Your task to perform on an android device: Open Youtube and go to "Your channel" Image 0: 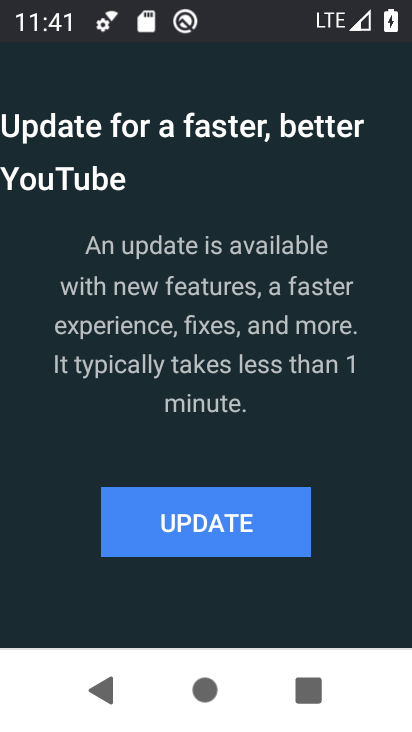
Step 0: press home button
Your task to perform on an android device: Open Youtube and go to "Your channel" Image 1: 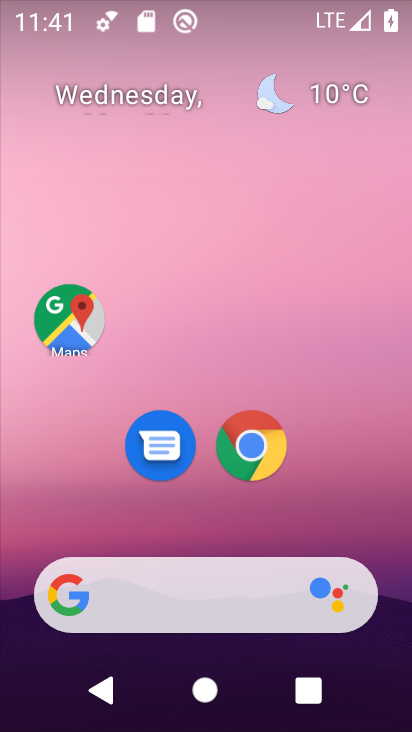
Step 1: drag from (190, 523) to (269, 84)
Your task to perform on an android device: Open Youtube and go to "Your channel" Image 2: 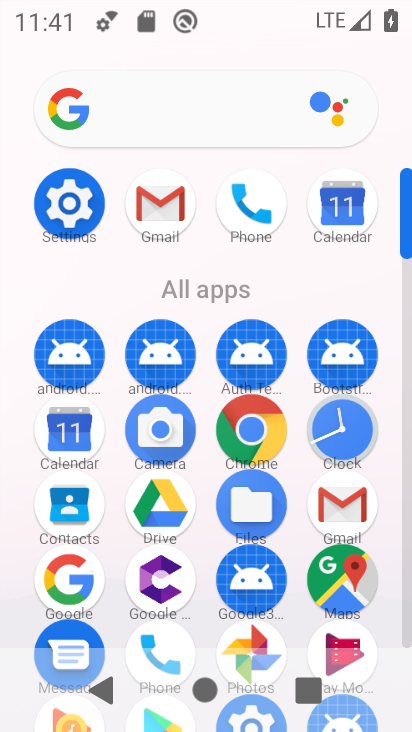
Step 2: drag from (201, 530) to (270, 104)
Your task to perform on an android device: Open Youtube and go to "Your channel" Image 3: 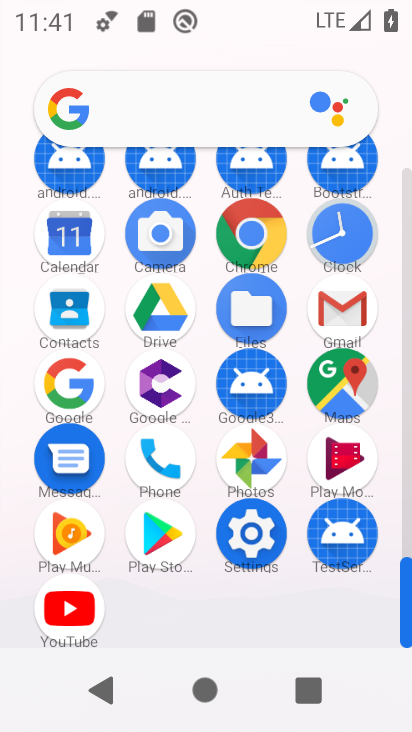
Step 3: click (68, 618)
Your task to perform on an android device: Open Youtube and go to "Your channel" Image 4: 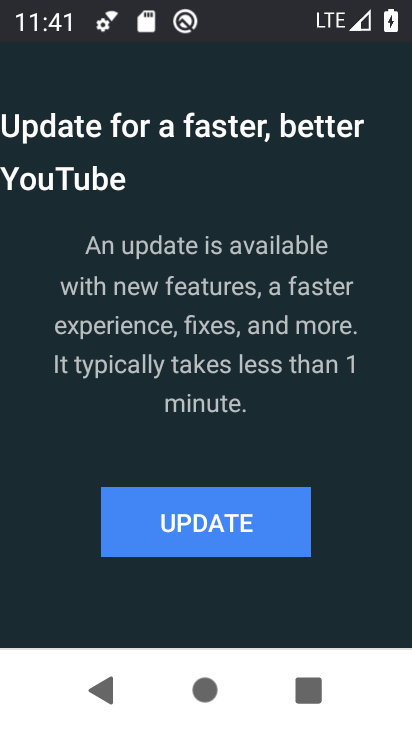
Step 4: click (187, 524)
Your task to perform on an android device: Open Youtube and go to "Your channel" Image 5: 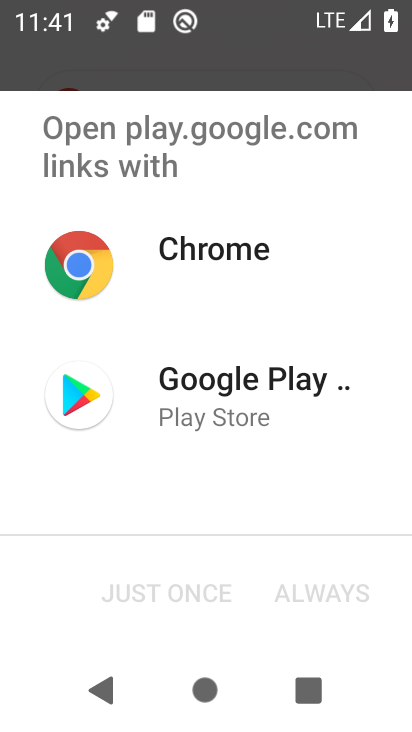
Step 5: click (207, 388)
Your task to perform on an android device: Open Youtube and go to "Your channel" Image 6: 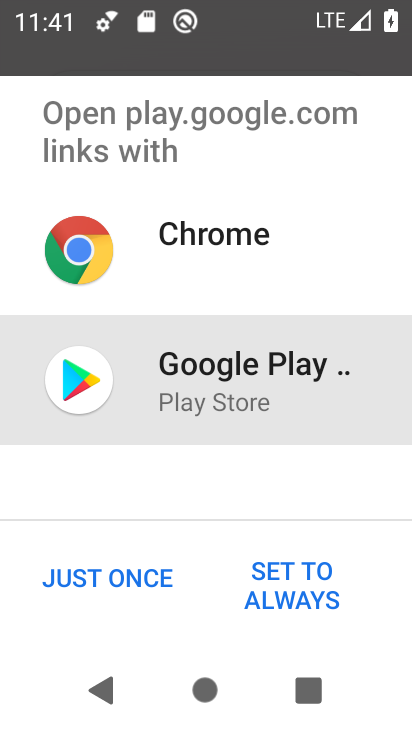
Step 6: click (134, 543)
Your task to perform on an android device: Open Youtube and go to "Your channel" Image 7: 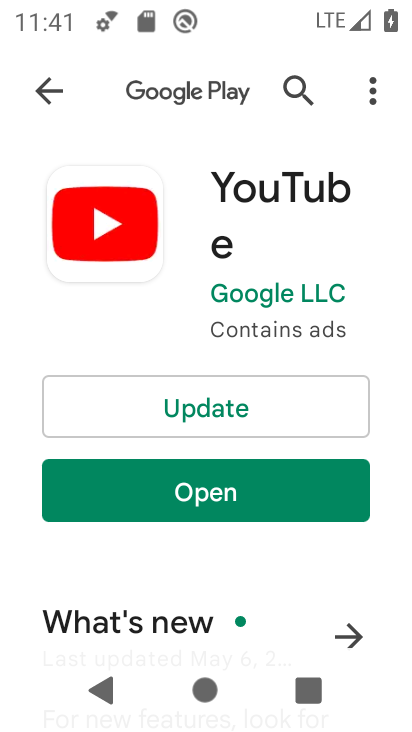
Step 7: click (201, 416)
Your task to perform on an android device: Open Youtube and go to "Your channel" Image 8: 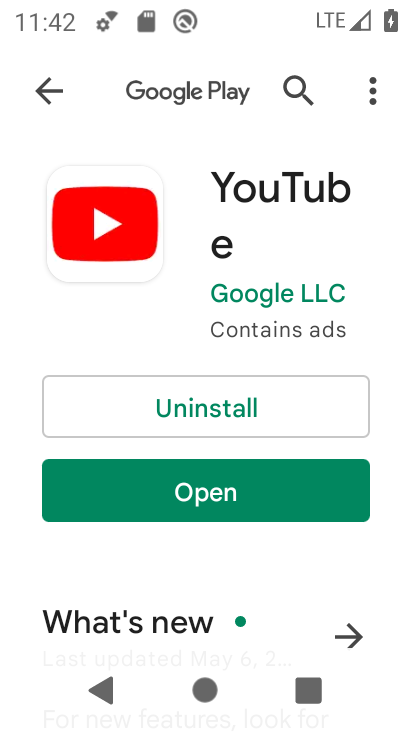
Step 8: click (221, 492)
Your task to perform on an android device: Open Youtube and go to "Your channel" Image 9: 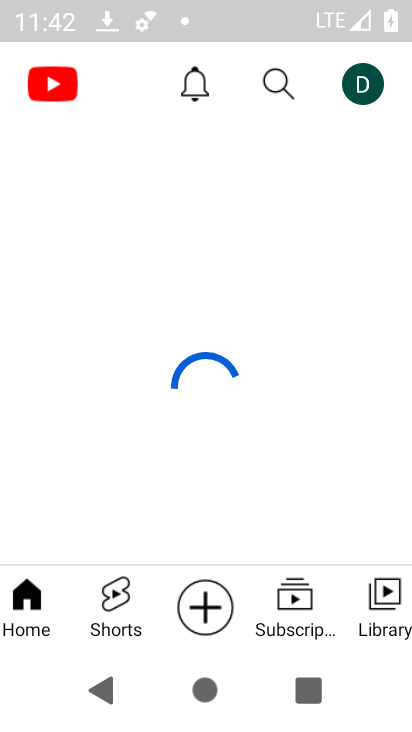
Step 9: click (363, 78)
Your task to perform on an android device: Open Youtube and go to "Your channel" Image 10: 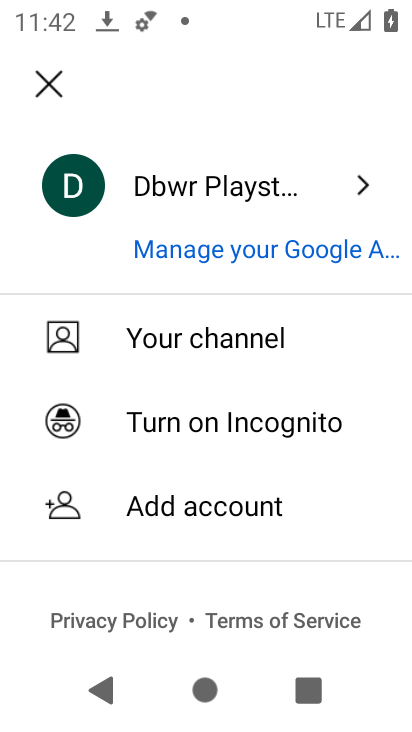
Step 10: click (163, 343)
Your task to perform on an android device: Open Youtube and go to "Your channel" Image 11: 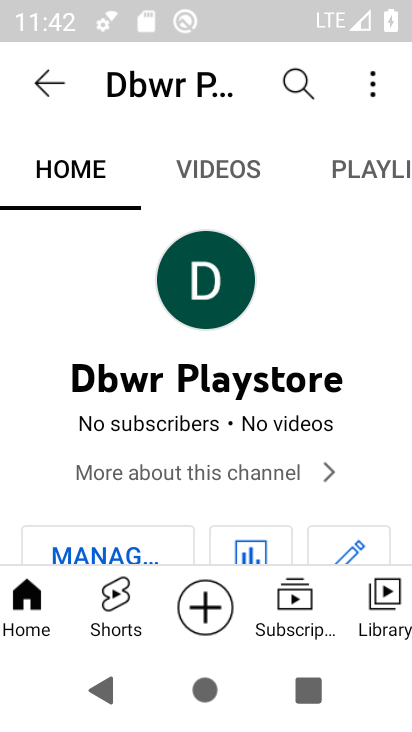
Step 11: task complete